Your task to perform on an android device: turn on sleep mode Image 0: 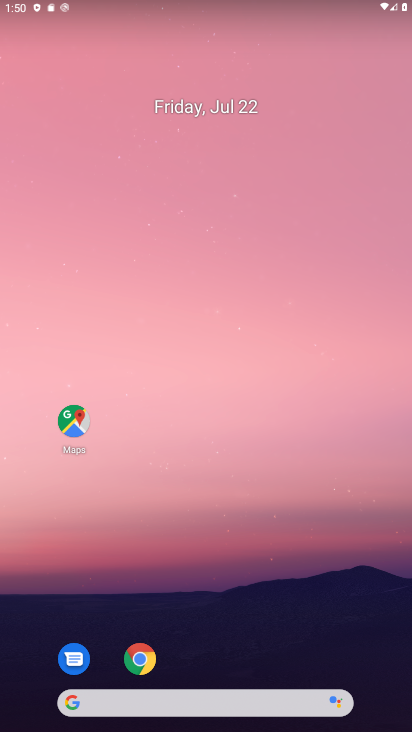
Step 0: drag from (300, 652) to (192, 91)
Your task to perform on an android device: turn on sleep mode Image 1: 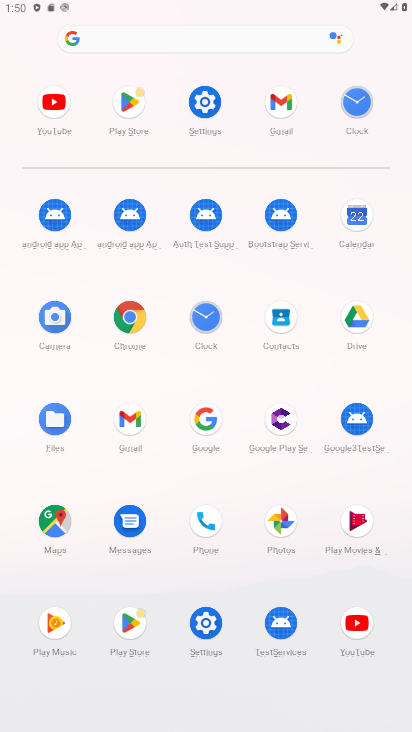
Step 1: click (215, 89)
Your task to perform on an android device: turn on sleep mode Image 2: 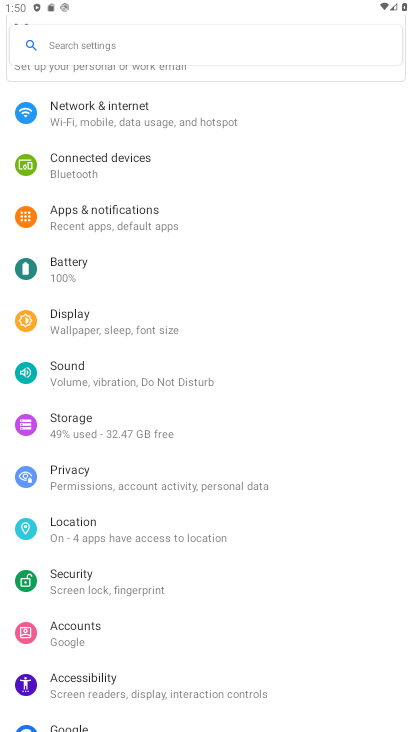
Step 2: task complete